Your task to perform on an android device: Go to location settings Image 0: 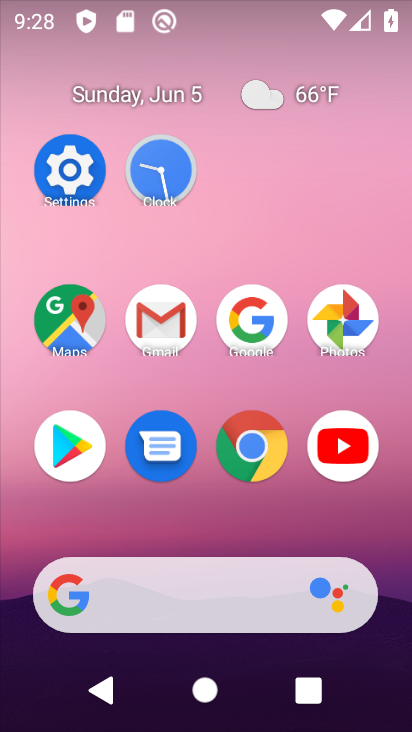
Step 0: click (31, 166)
Your task to perform on an android device: Go to location settings Image 1: 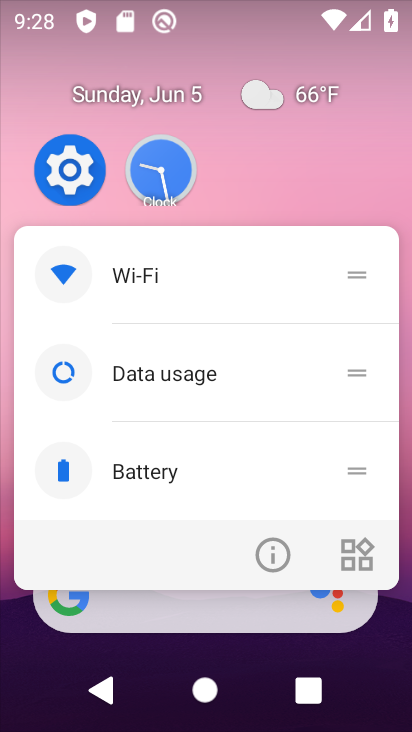
Step 1: click (31, 166)
Your task to perform on an android device: Go to location settings Image 2: 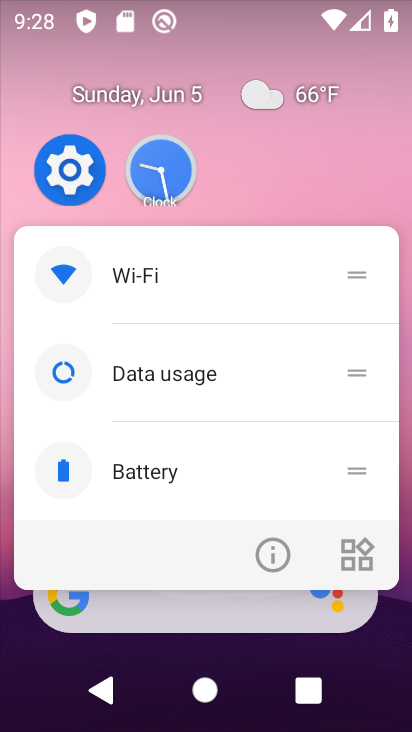
Step 2: click (37, 162)
Your task to perform on an android device: Go to location settings Image 3: 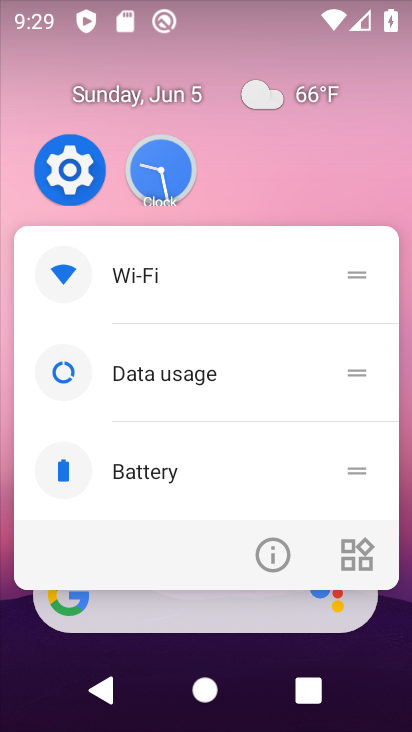
Step 3: click (69, 162)
Your task to perform on an android device: Go to location settings Image 4: 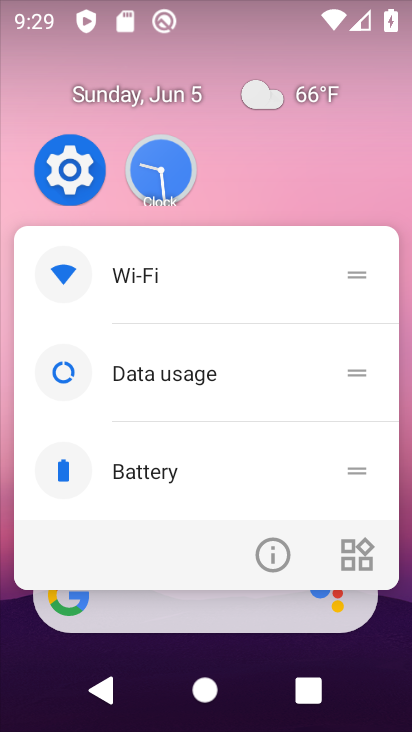
Step 4: click (69, 162)
Your task to perform on an android device: Go to location settings Image 5: 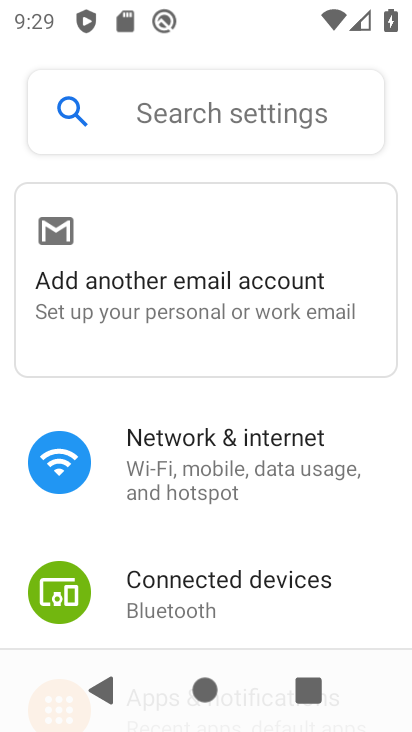
Step 5: drag from (279, 524) to (262, 216)
Your task to perform on an android device: Go to location settings Image 6: 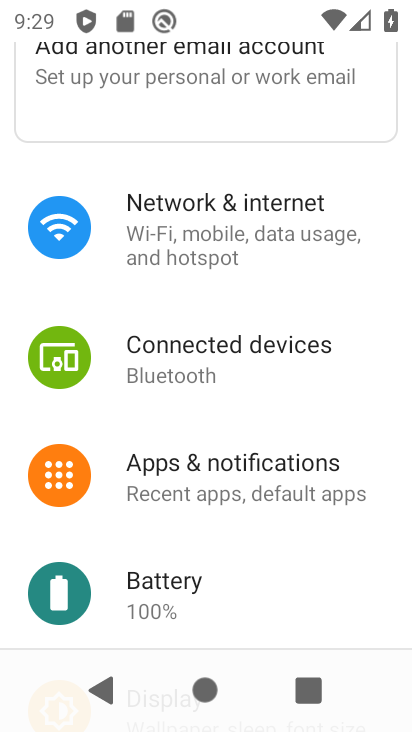
Step 6: drag from (331, 516) to (337, 191)
Your task to perform on an android device: Go to location settings Image 7: 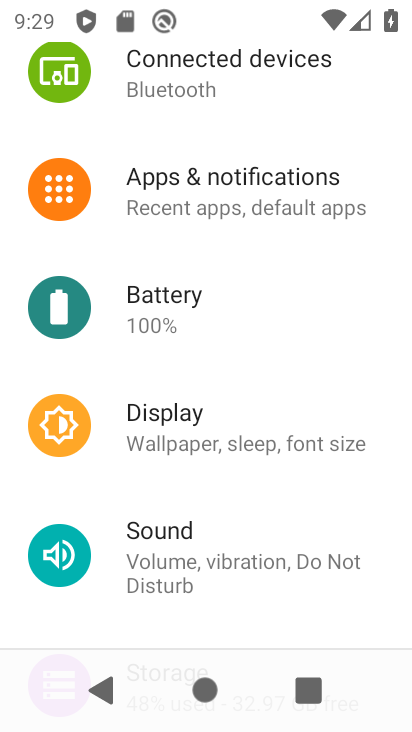
Step 7: drag from (321, 486) to (314, 260)
Your task to perform on an android device: Go to location settings Image 8: 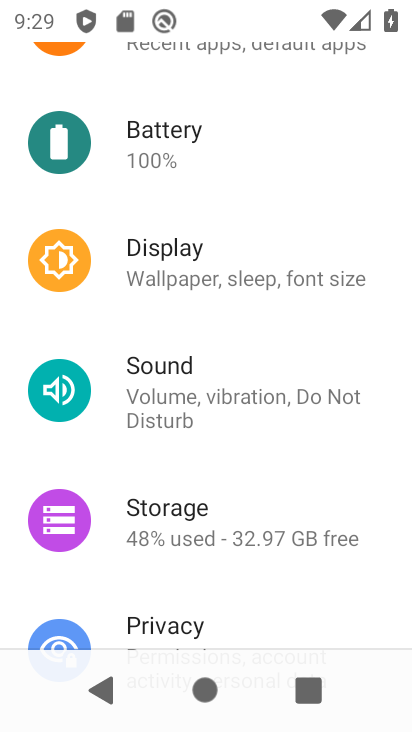
Step 8: drag from (261, 545) to (247, 293)
Your task to perform on an android device: Go to location settings Image 9: 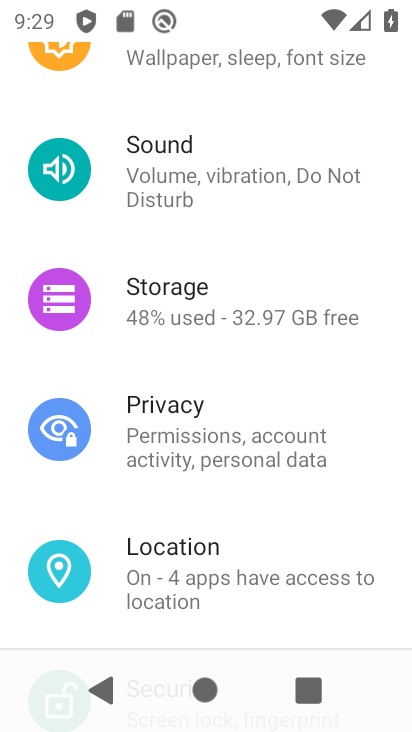
Step 9: click (252, 569)
Your task to perform on an android device: Go to location settings Image 10: 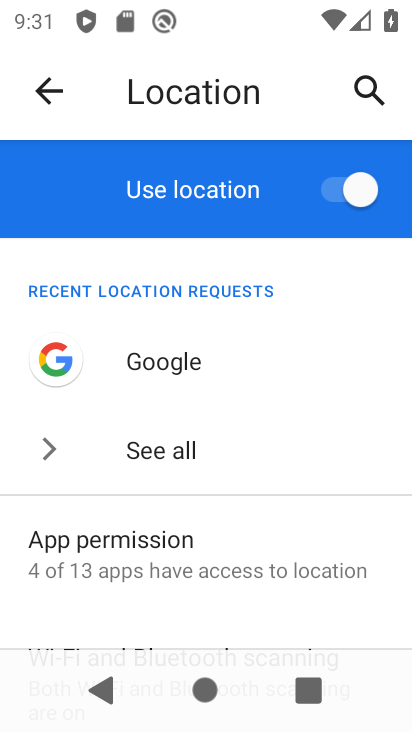
Step 10: task complete